Your task to perform on an android device: open a bookmark in the chrome app Image 0: 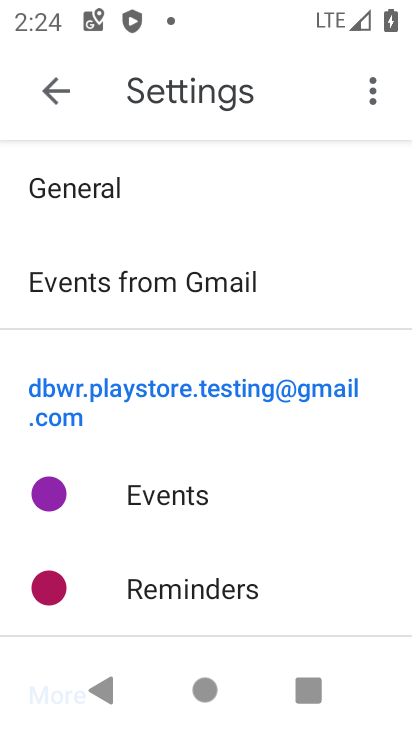
Step 0: press home button
Your task to perform on an android device: open a bookmark in the chrome app Image 1: 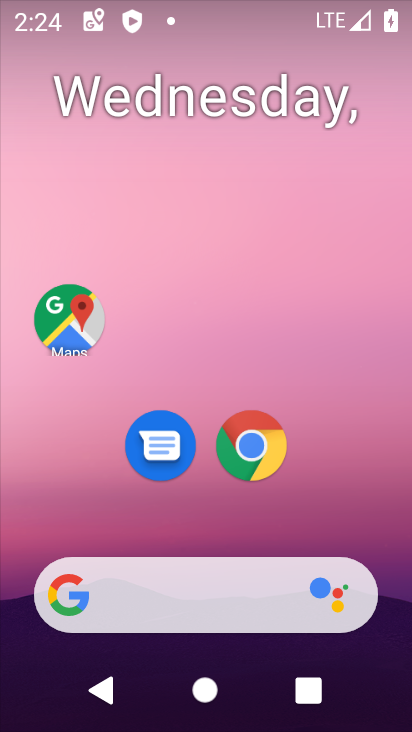
Step 1: click (239, 437)
Your task to perform on an android device: open a bookmark in the chrome app Image 2: 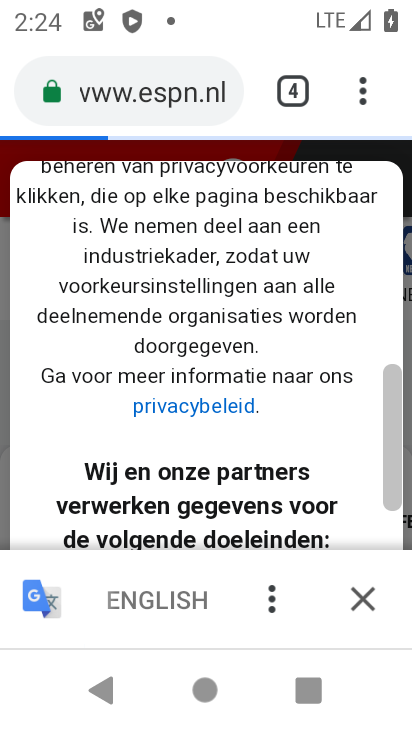
Step 2: task complete